Your task to perform on an android device: manage bookmarks in the chrome app Image 0: 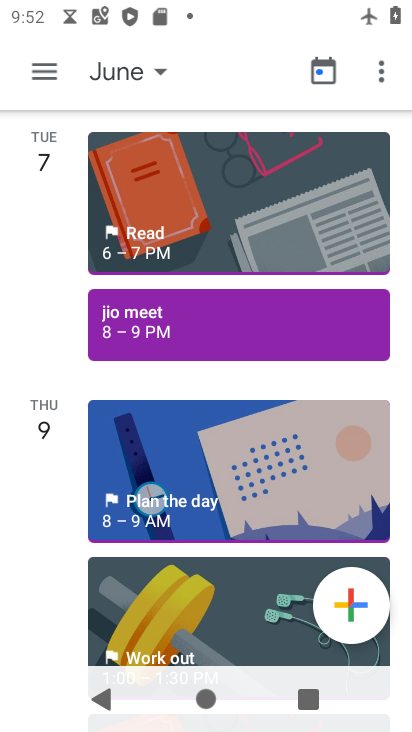
Step 0: press home button
Your task to perform on an android device: manage bookmarks in the chrome app Image 1: 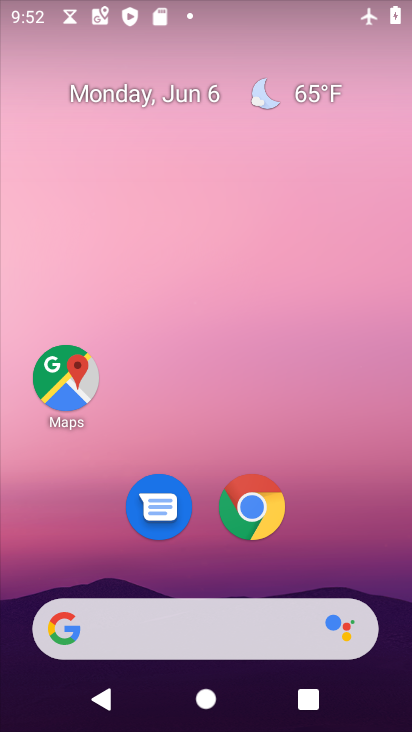
Step 1: click (248, 507)
Your task to perform on an android device: manage bookmarks in the chrome app Image 2: 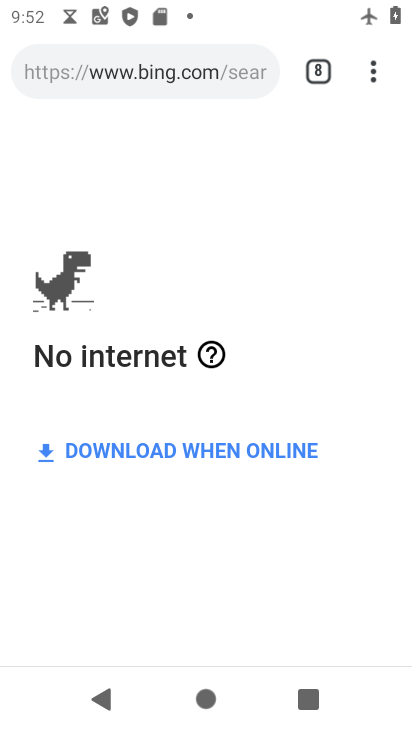
Step 2: click (374, 57)
Your task to perform on an android device: manage bookmarks in the chrome app Image 3: 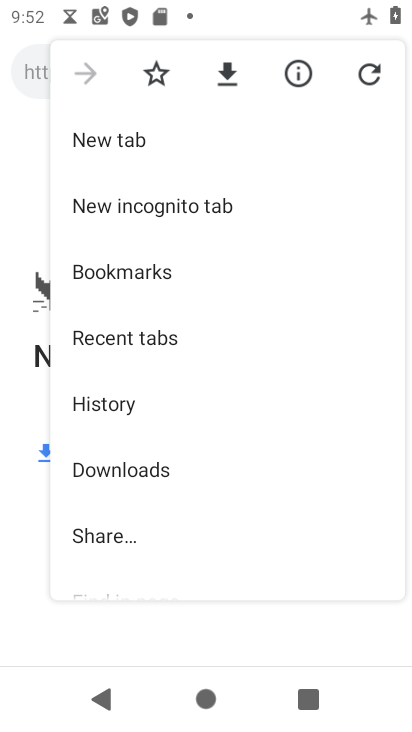
Step 3: click (155, 254)
Your task to perform on an android device: manage bookmarks in the chrome app Image 4: 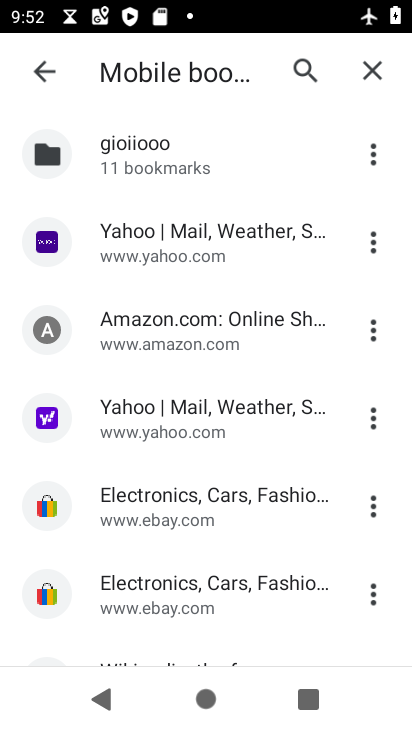
Step 4: click (122, 252)
Your task to perform on an android device: manage bookmarks in the chrome app Image 5: 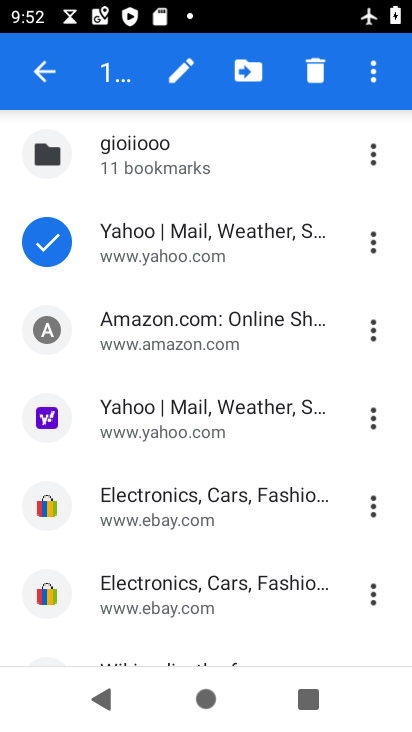
Step 5: click (259, 68)
Your task to perform on an android device: manage bookmarks in the chrome app Image 6: 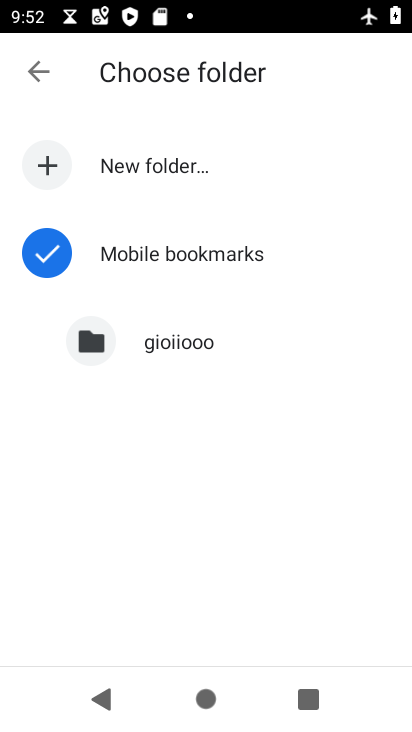
Step 6: click (148, 336)
Your task to perform on an android device: manage bookmarks in the chrome app Image 7: 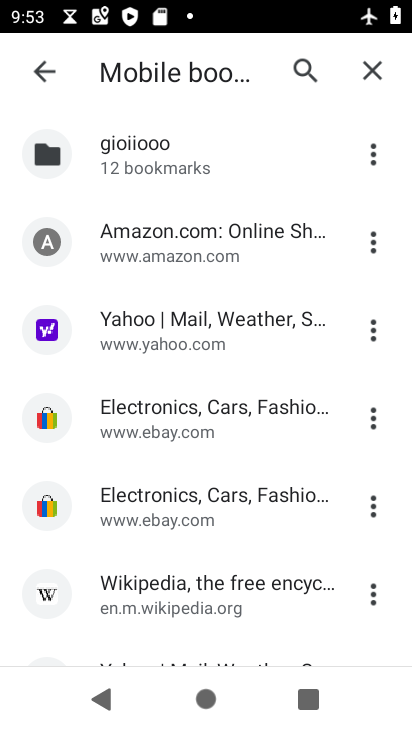
Step 7: task complete